Your task to perform on an android device: toggle location history Image 0: 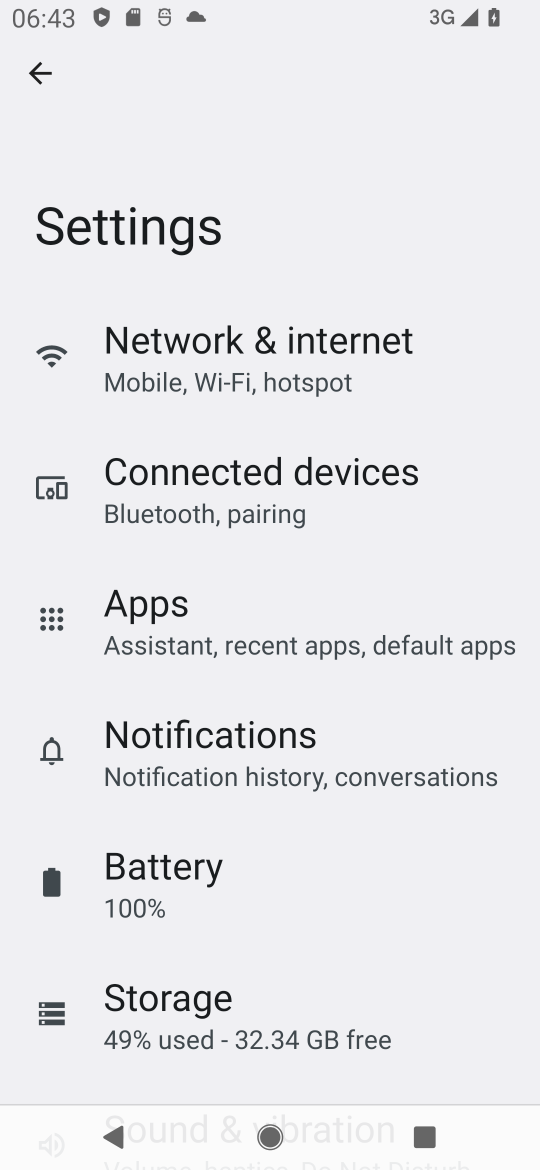
Step 0: press home button
Your task to perform on an android device: toggle location history Image 1: 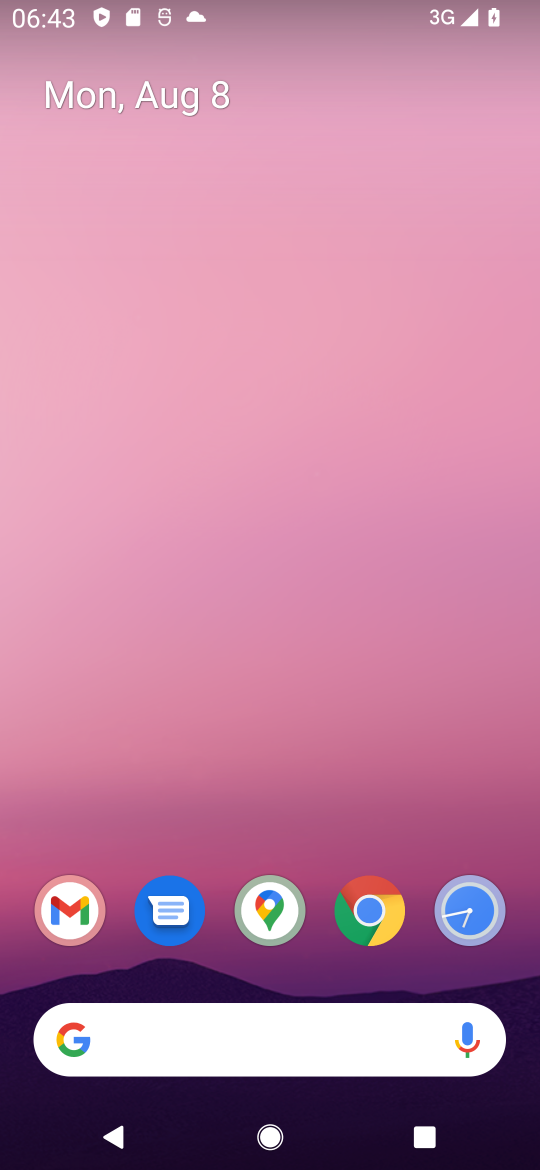
Step 1: drag from (233, 1046) to (310, 392)
Your task to perform on an android device: toggle location history Image 2: 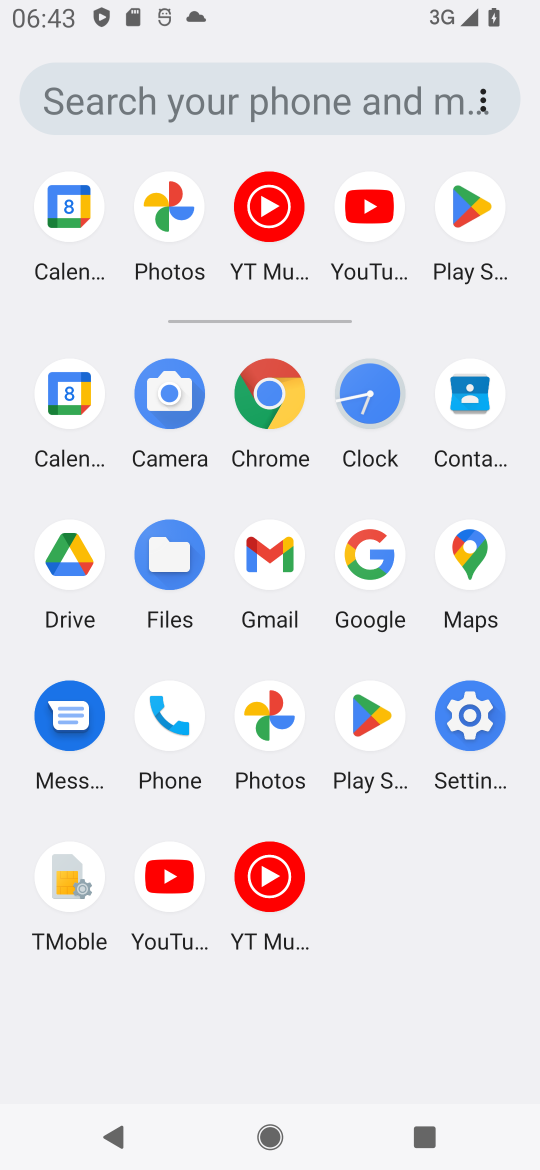
Step 2: click (469, 716)
Your task to perform on an android device: toggle location history Image 3: 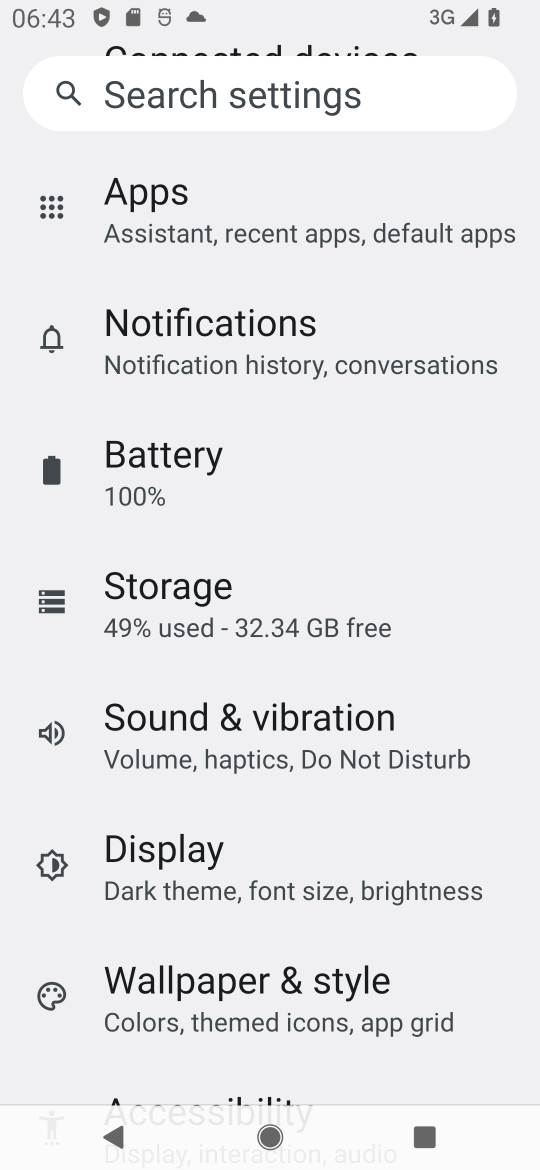
Step 3: drag from (310, 814) to (328, 657)
Your task to perform on an android device: toggle location history Image 4: 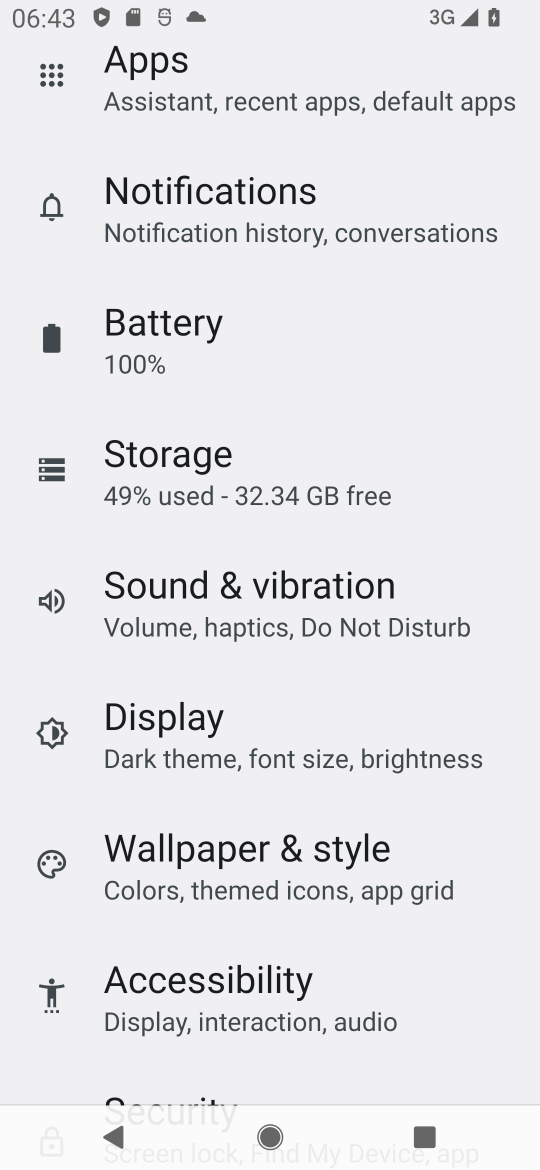
Step 4: drag from (208, 908) to (269, 711)
Your task to perform on an android device: toggle location history Image 5: 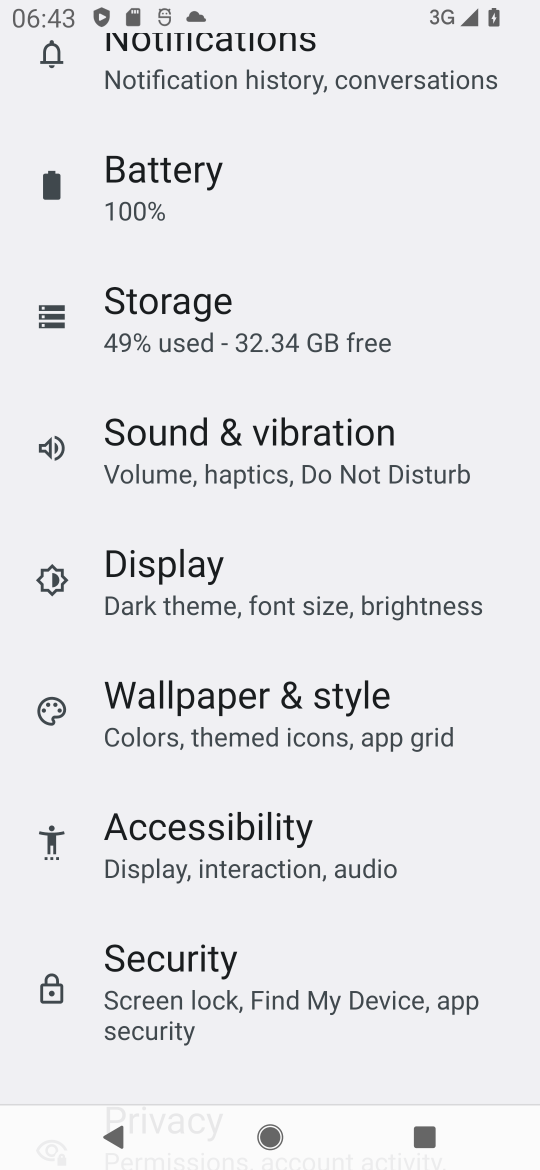
Step 5: drag from (224, 901) to (295, 726)
Your task to perform on an android device: toggle location history Image 6: 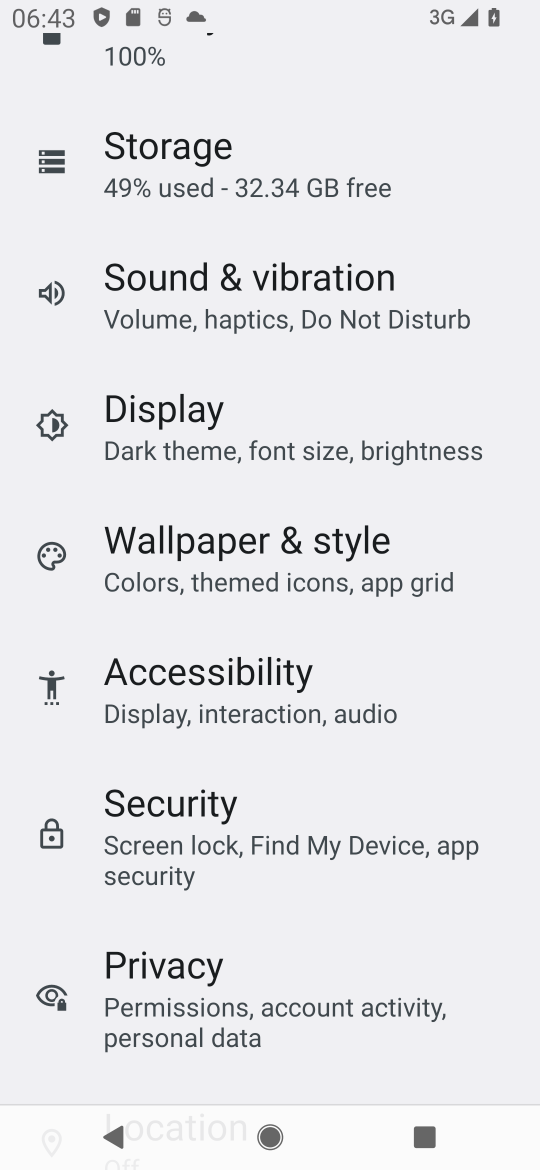
Step 6: drag from (280, 966) to (394, 642)
Your task to perform on an android device: toggle location history Image 7: 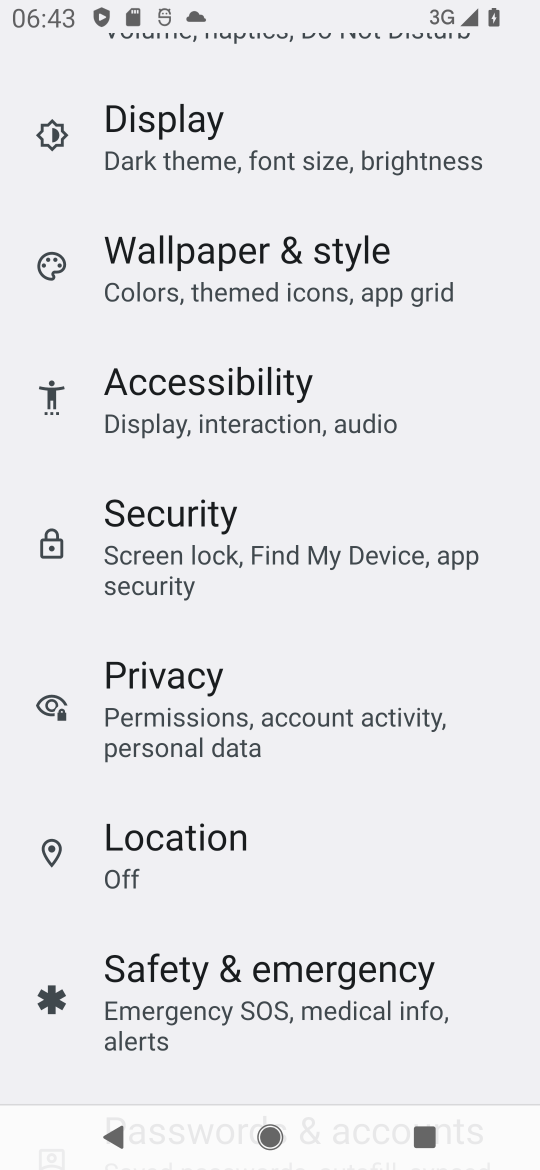
Step 7: click (237, 867)
Your task to perform on an android device: toggle location history Image 8: 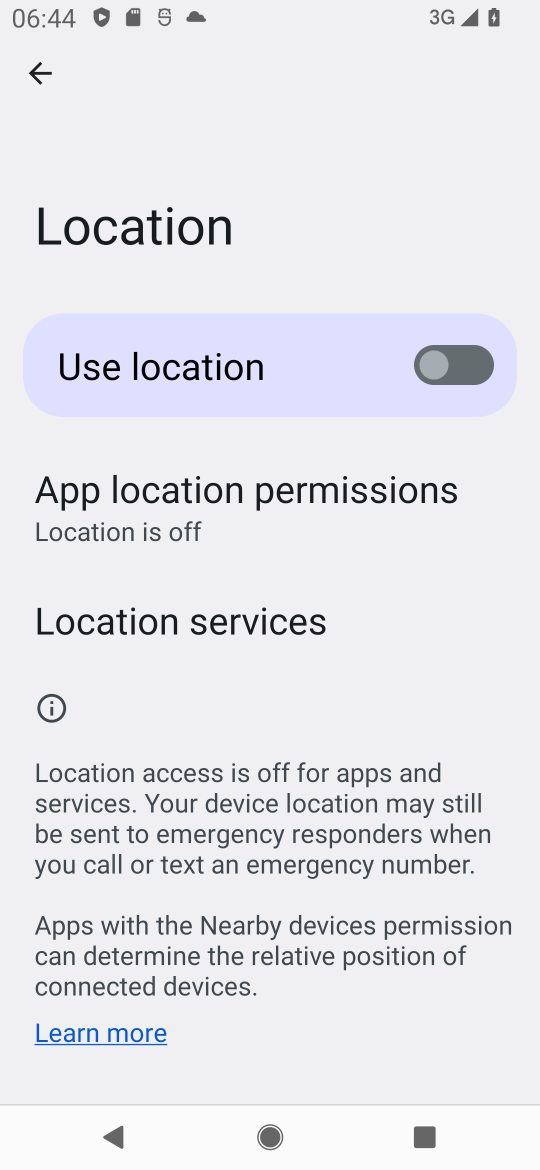
Step 8: click (262, 626)
Your task to perform on an android device: toggle location history Image 9: 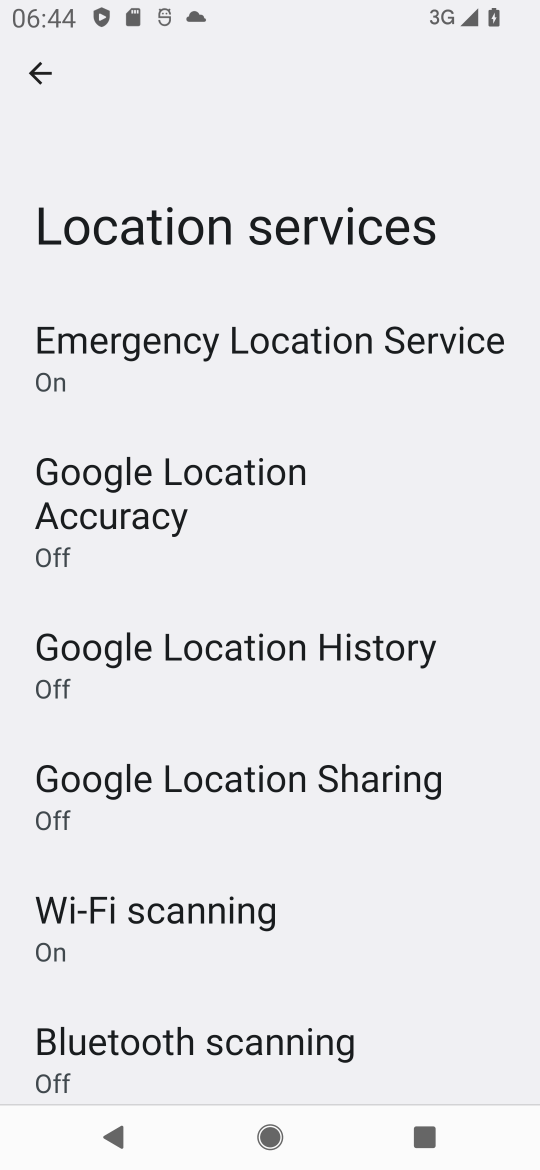
Step 9: click (255, 652)
Your task to perform on an android device: toggle location history Image 10: 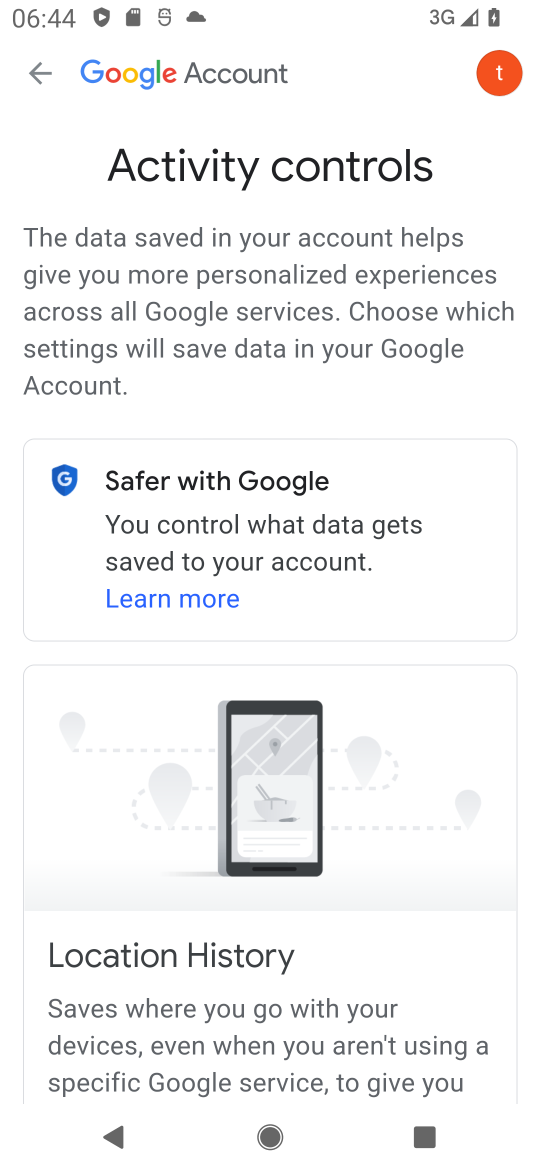
Step 10: drag from (350, 897) to (444, 676)
Your task to perform on an android device: toggle location history Image 11: 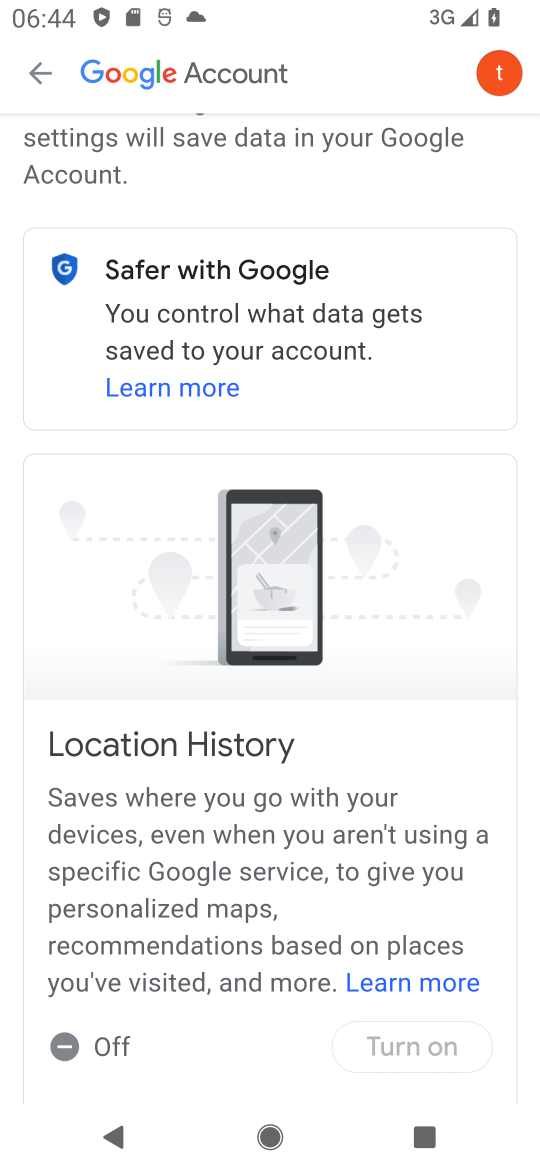
Step 11: drag from (260, 1052) to (421, 668)
Your task to perform on an android device: toggle location history Image 12: 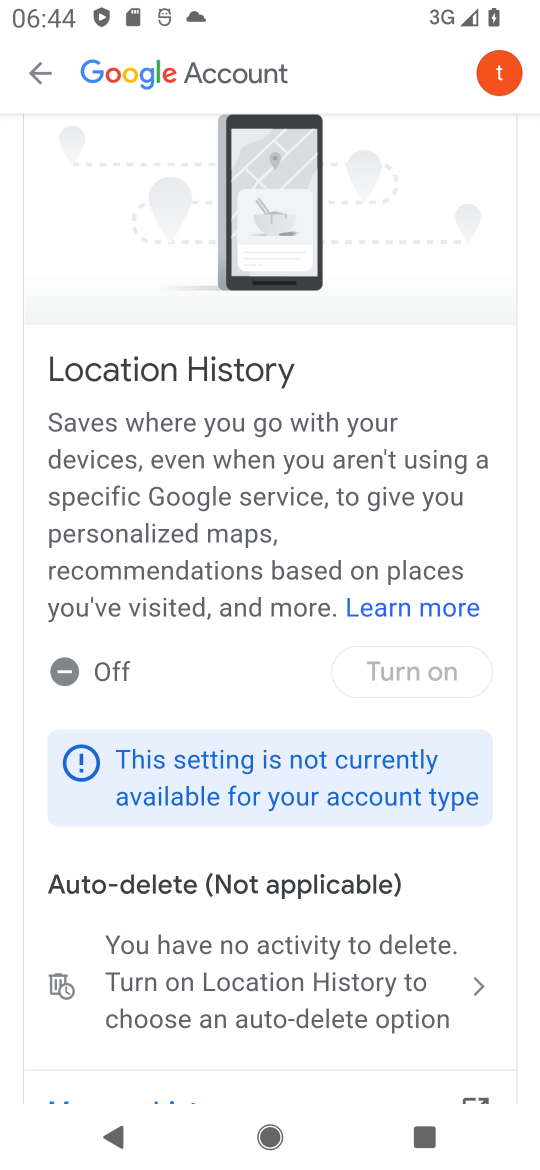
Step 12: drag from (237, 967) to (293, 616)
Your task to perform on an android device: toggle location history Image 13: 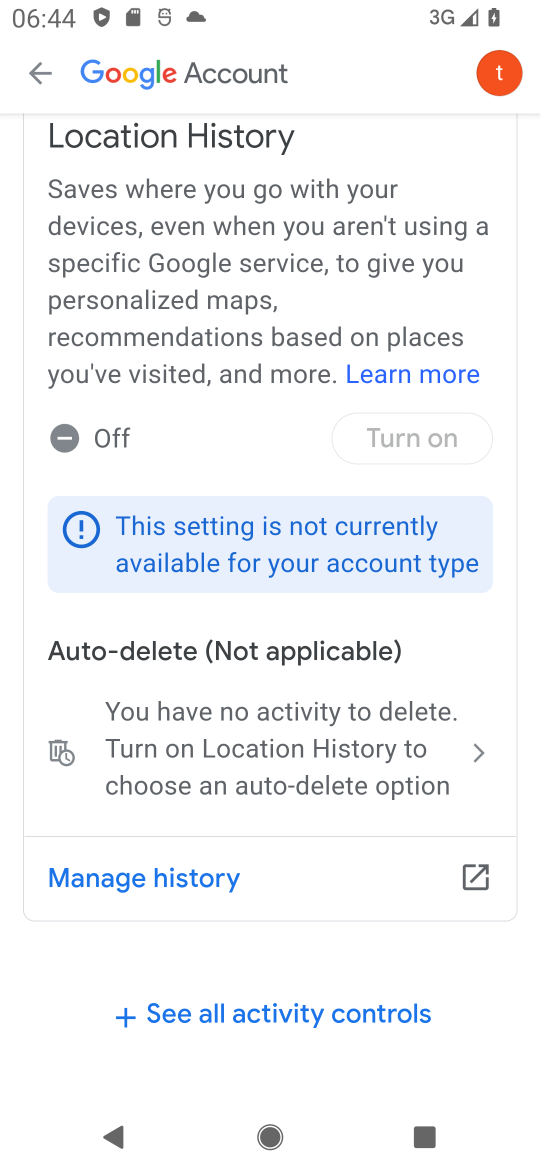
Step 13: click (307, 1015)
Your task to perform on an android device: toggle location history Image 14: 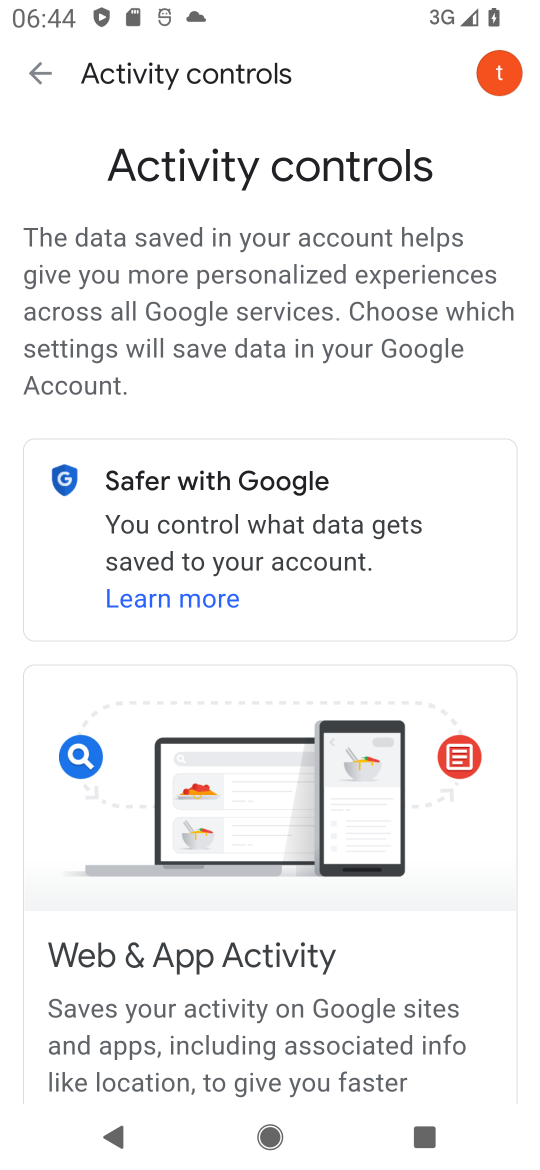
Step 14: task complete